Your task to perform on an android device: Go to battery settings Image 0: 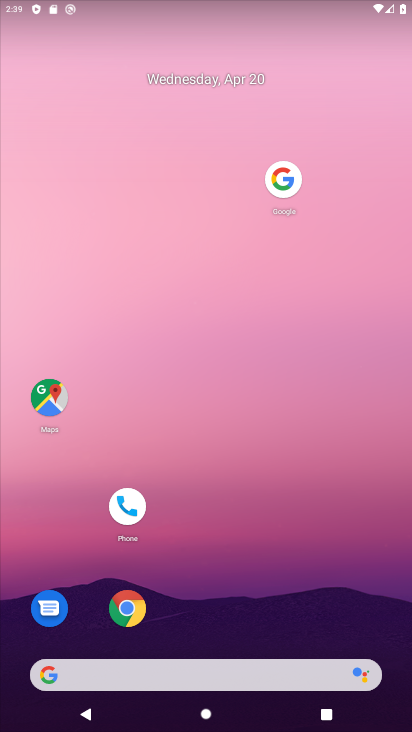
Step 0: drag from (229, 590) to (317, 124)
Your task to perform on an android device: Go to battery settings Image 1: 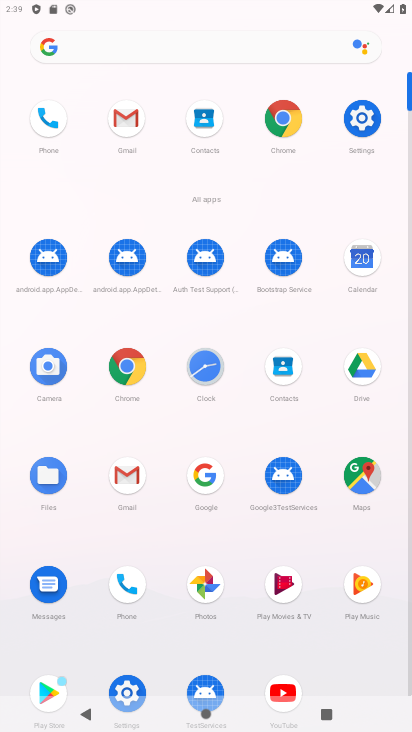
Step 1: click (368, 114)
Your task to perform on an android device: Go to battery settings Image 2: 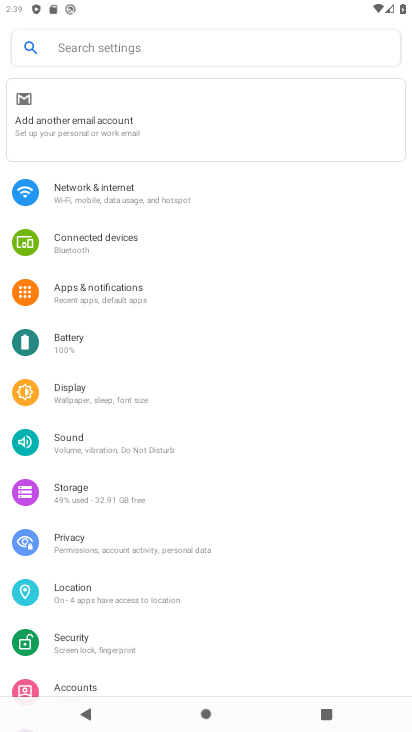
Step 2: click (71, 337)
Your task to perform on an android device: Go to battery settings Image 3: 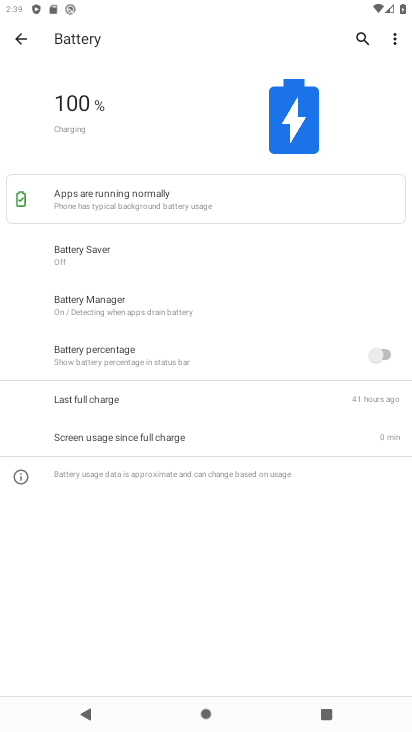
Step 3: task complete